Your task to perform on an android device: Open sound settings Image 0: 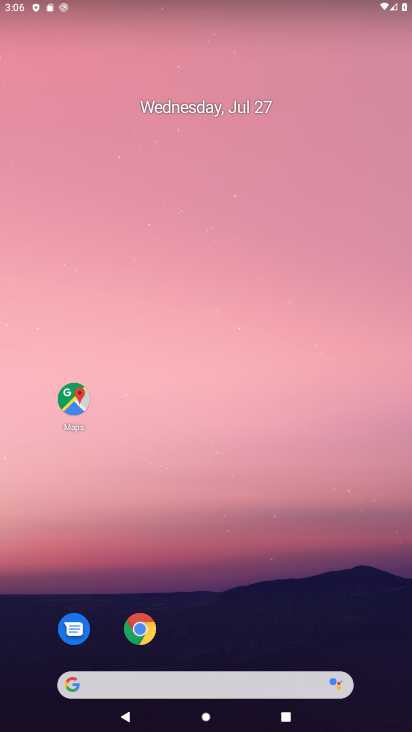
Step 0: drag from (211, 636) to (181, 3)
Your task to perform on an android device: Open sound settings Image 1: 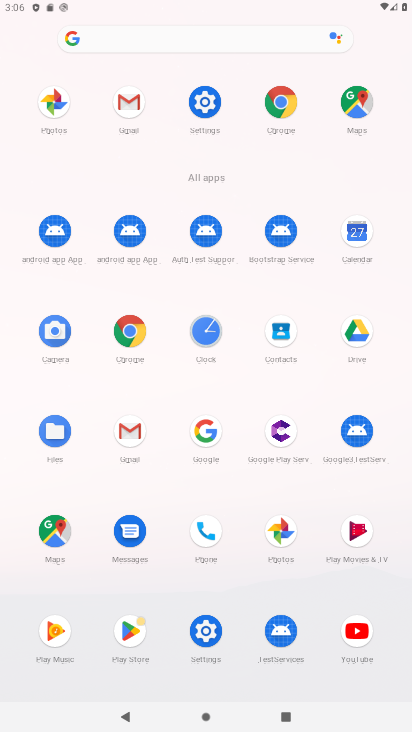
Step 1: click (201, 99)
Your task to perform on an android device: Open sound settings Image 2: 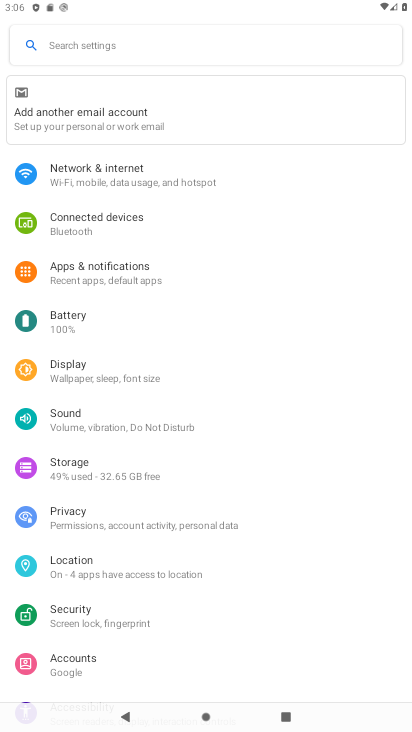
Step 2: click (88, 417)
Your task to perform on an android device: Open sound settings Image 3: 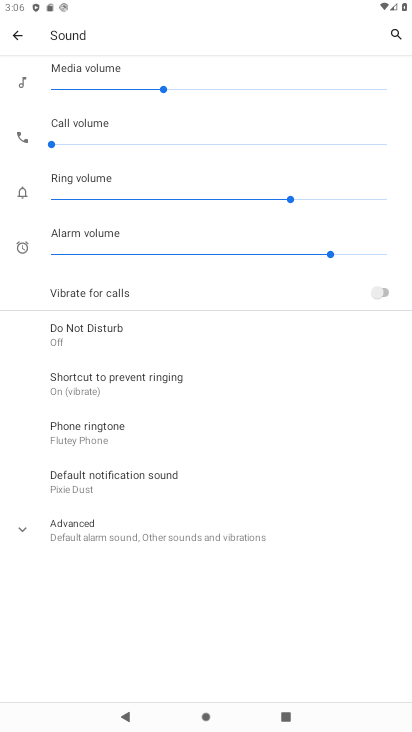
Step 3: click (20, 529)
Your task to perform on an android device: Open sound settings Image 4: 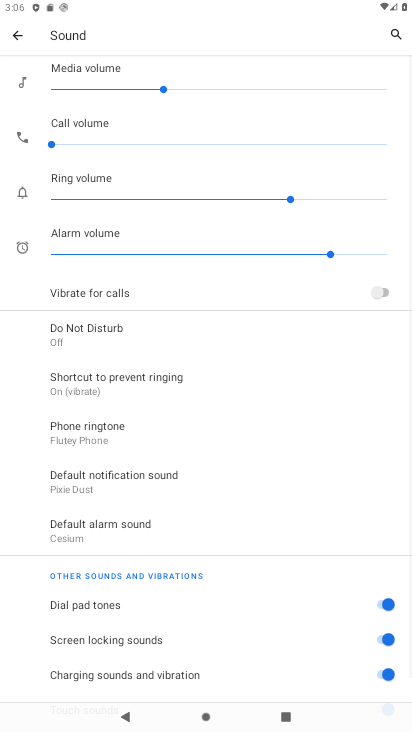
Step 4: task complete